Your task to perform on an android device: uninstall "LiveIn - Share Your Moment" Image 0: 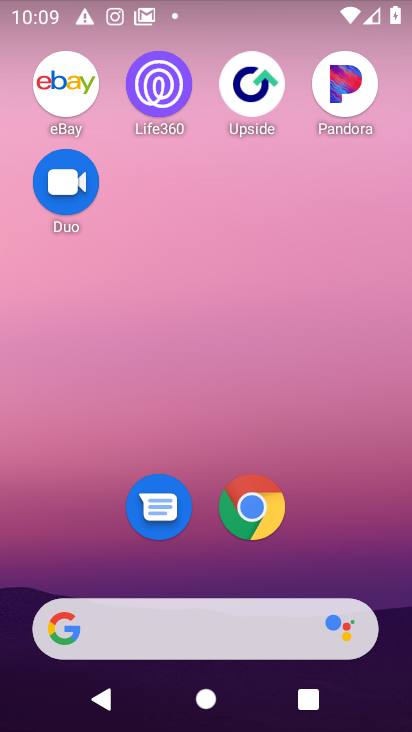
Step 0: drag from (180, 582) to (246, 2)
Your task to perform on an android device: uninstall "LiveIn - Share Your Moment" Image 1: 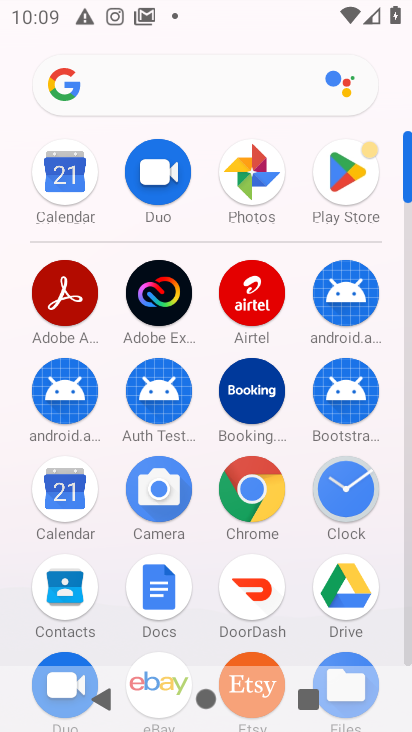
Step 1: click (345, 155)
Your task to perform on an android device: uninstall "LiveIn - Share Your Moment" Image 2: 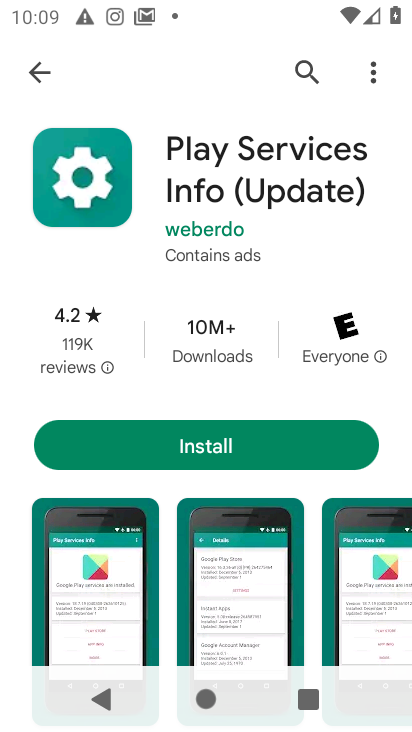
Step 2: click (43, 76)
Your task to perform on an android device: uninstall "LiveIn - Share Your Moment" Image 3: 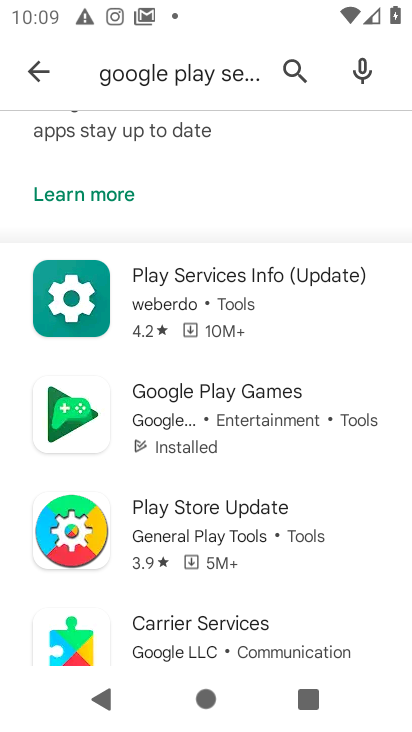
Step 3: click (37, 71)
Your task to perform on an android device: uninstall "LiveIn - Share Your Moment" Image 4: 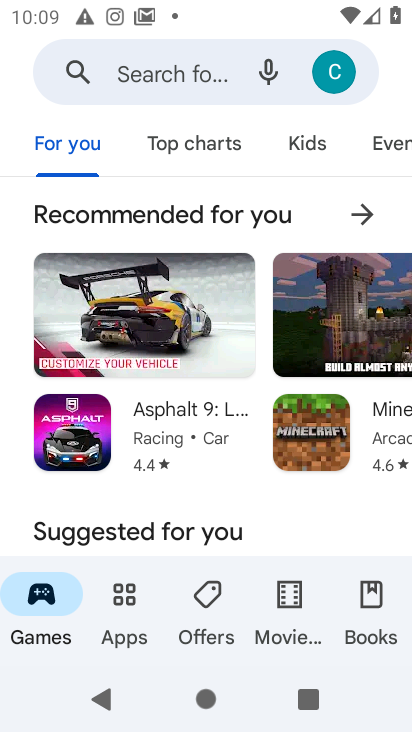
Step 4: click (135, 71)
Your task to perform on an android device: uninstall "LiveIn - Share Your Moment" Image 5: 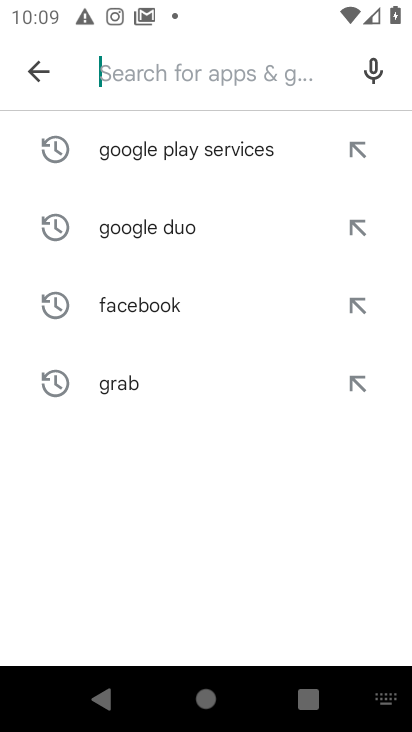
Step 5: type "LiveIn"
Your task to perform on an android device: uninstall "LiveIn - Share Your Moment" Image 6: 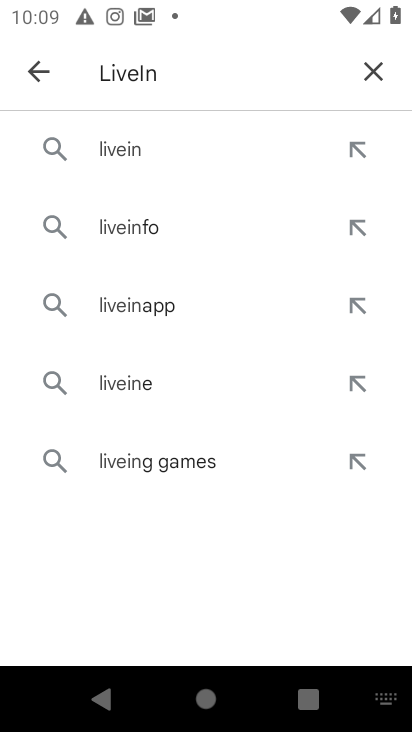
Step 6: click (105, 150)
Your task to perform on an android device: uninstall "LiveIn - Share Your Moment" Image 7: 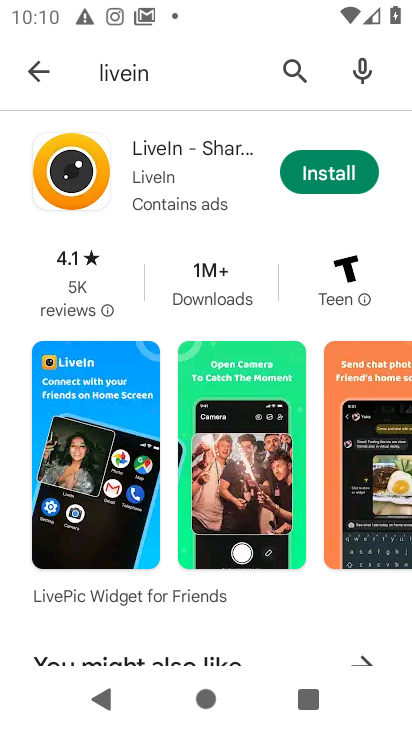
Step 7: click (320, 168)
Your task to perform on an android device: uninstall "LiveIn - Share Your Moment" Image 8: 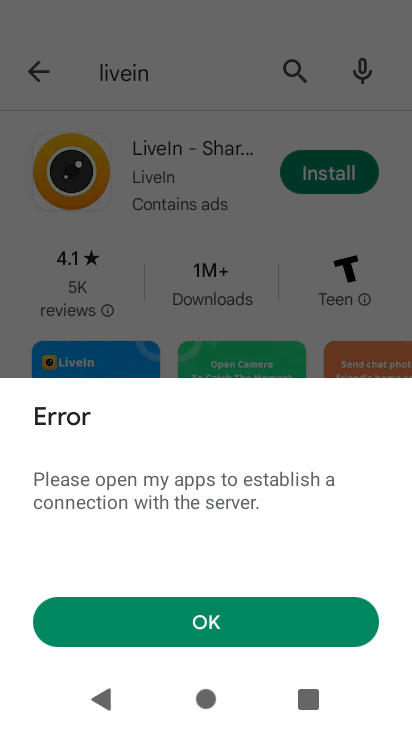
Step 8: click (216, 610)
Your task to perform on an android device: uninstall "LiveIn - Share Your Moment" Image 9: 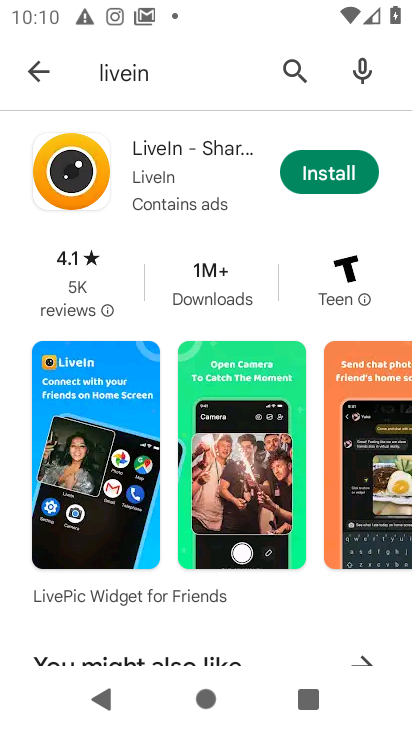
Step 9: task complete